Your task to perform on an android device: Look up the best rated power drills on Lowes.com Image 0: 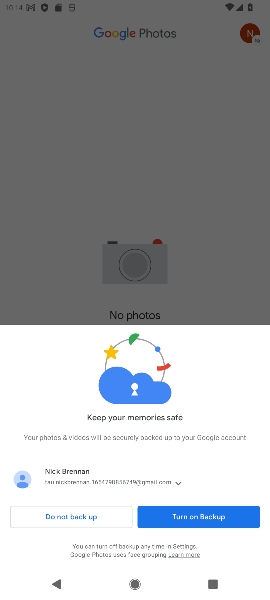
Step 0: click (109, 514)
Your task to perform on an android device: Look up the best rated power drills on Lowes.com Image 1: 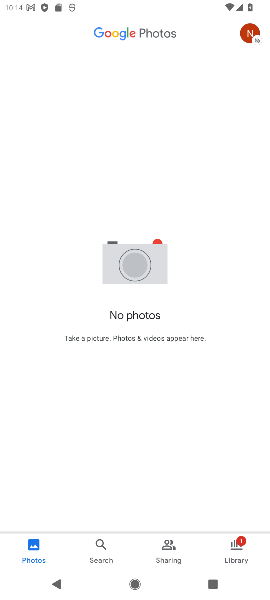
Step 1: task complete